Your task to perform on an android device: turn pop-ups on in chrome Image 0: 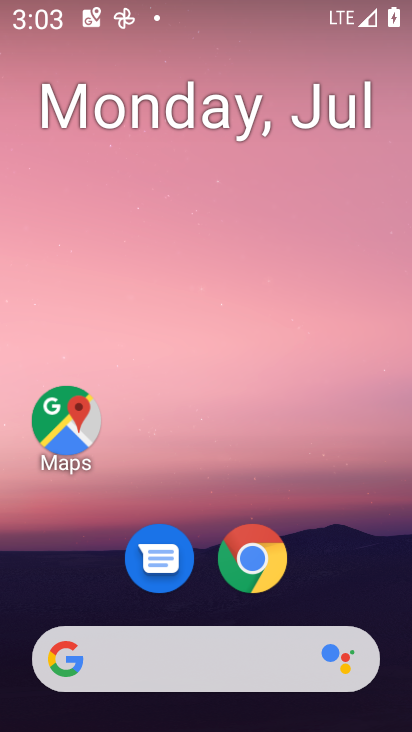
Step 0: drag from (349, 568) to (411, 300)
Your task to perform on an android device: turn pop-ups on in chrome Image 1: 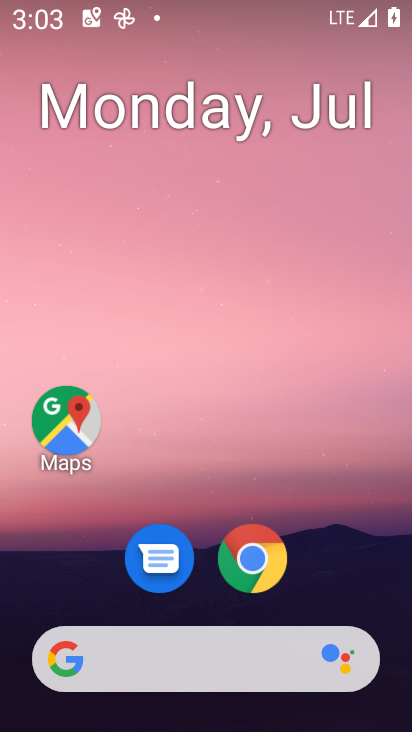
Step 1: drag from (372, 583) to (373, 88)
Your task to perform on an android device: turn pop-ups on in chrome Image 2: 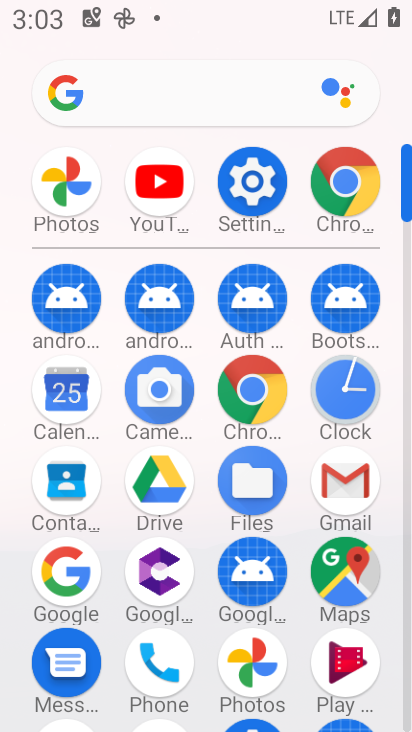
Step 2: click (350, 196)
Your task to perform on an android device: turn pop-ups on in chrome Image 3: 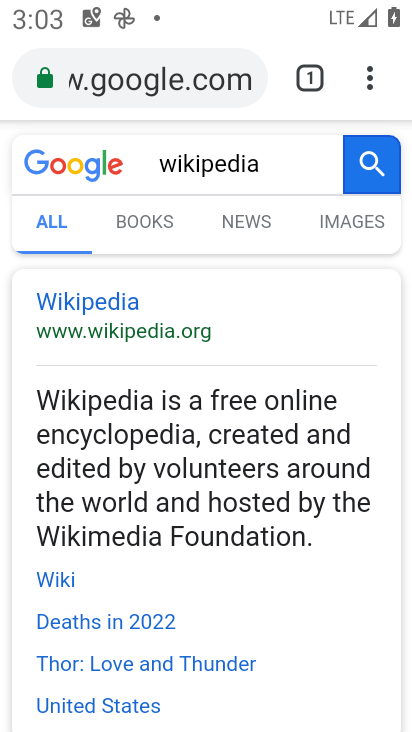
Step 3: click (370, 86)
Your task to perform on an android device: turn pop-ups on in chrome Image 4: 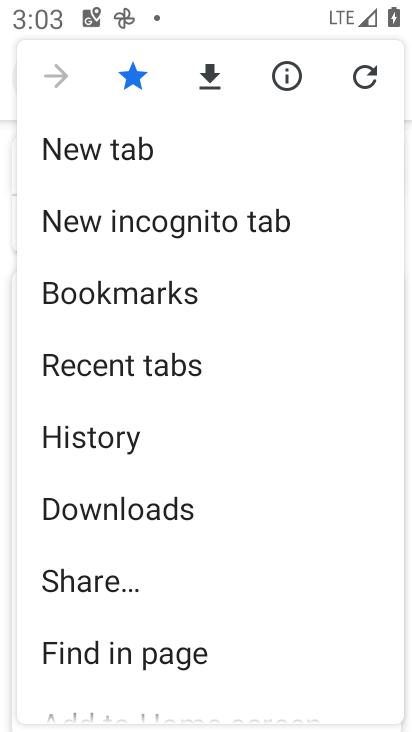
Step 4: drag from (270, 497) to (274, 368)
Your task to perform on an android device: turn pop-ups on in chrome Image 5: 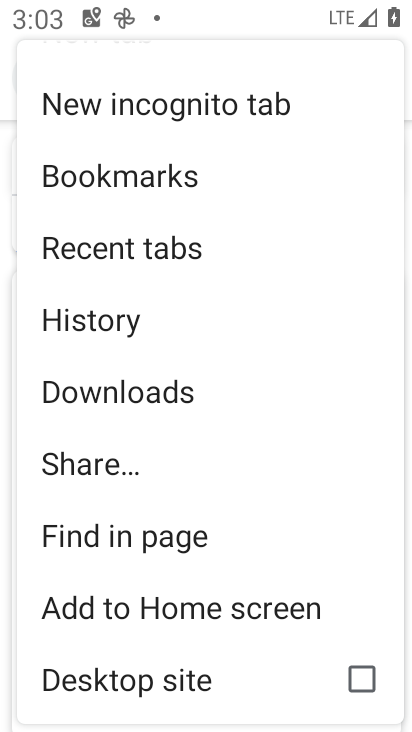
Step 5: drag from (286, 511) to (289, 384)
Your task to perform on an android device: turn pop-ups on in chrome Image 6: 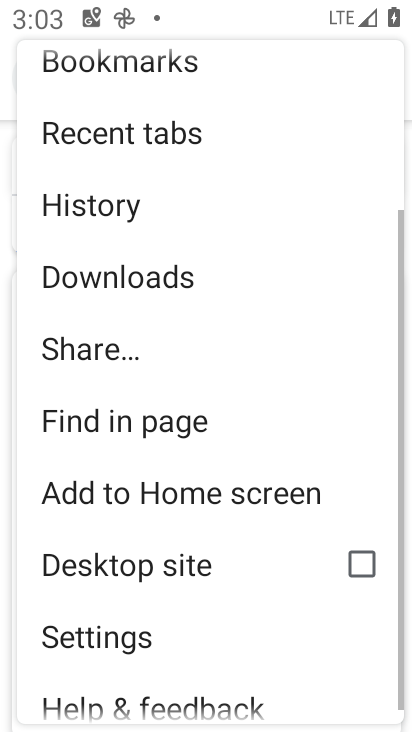
Step 6: drag from (254, 582) to (254, 416)
Your task to perform on an android device: turn pop-ups on in chrome Image 7: 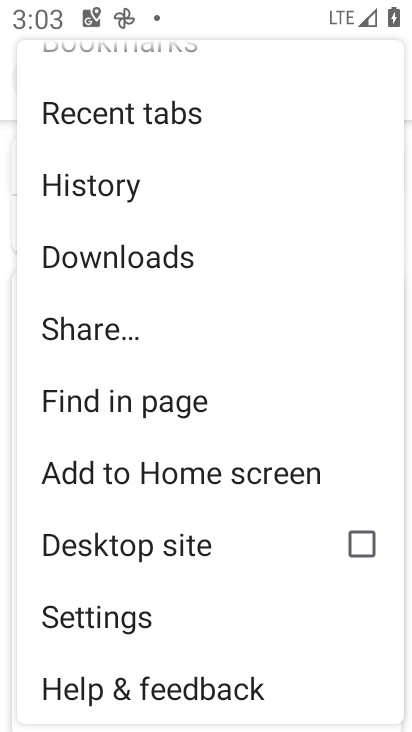
Step 7: click (209, 613)
Your task to perform on an android device: turn pop-ups on in chrome Image 8: 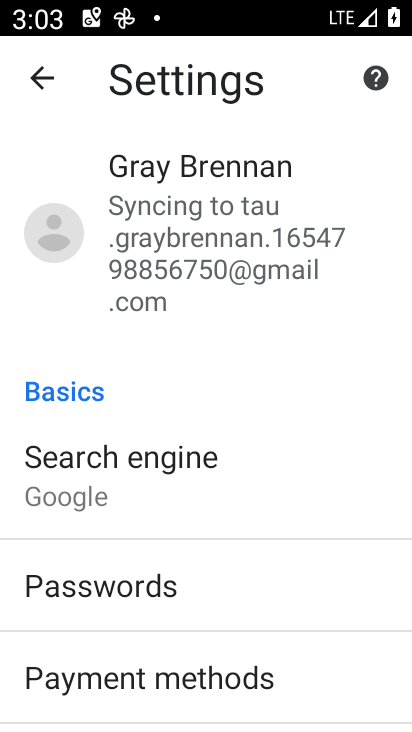
Step 8: drag from (362, 630) to (355, 446)
Your task to perform on an android device: turn pop-ups on in chrome Image 9: 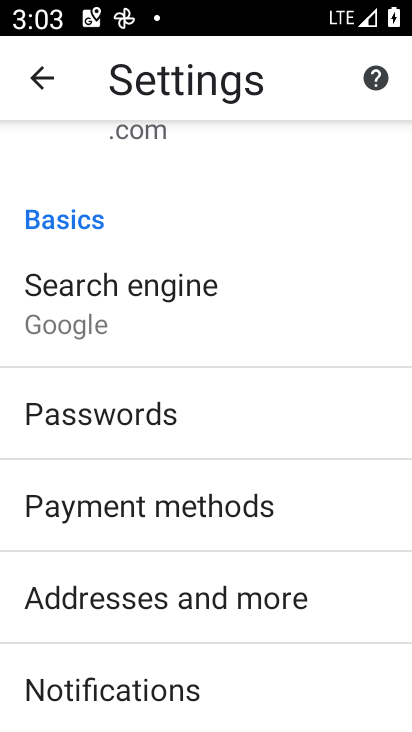
Step 9: drag from (347, 616) to (347, 457)
Your task to perform on an android device: turn pop-ups on in chrome Image 10: 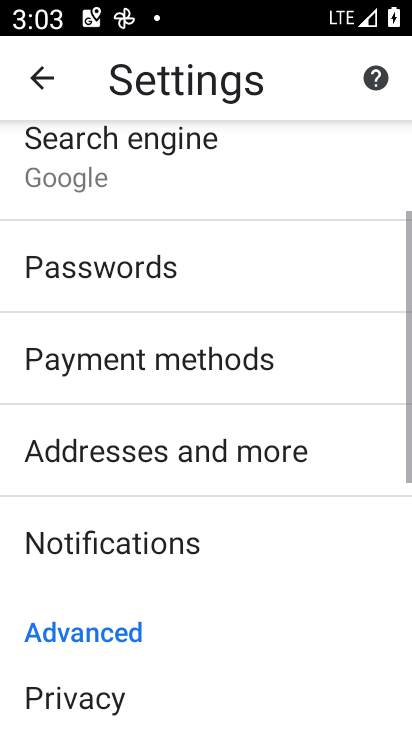
Step 10: drag from (339, 628) to (339, 480)
Your task to perform on an android device: turn pop-ups on in chrome Image 11: 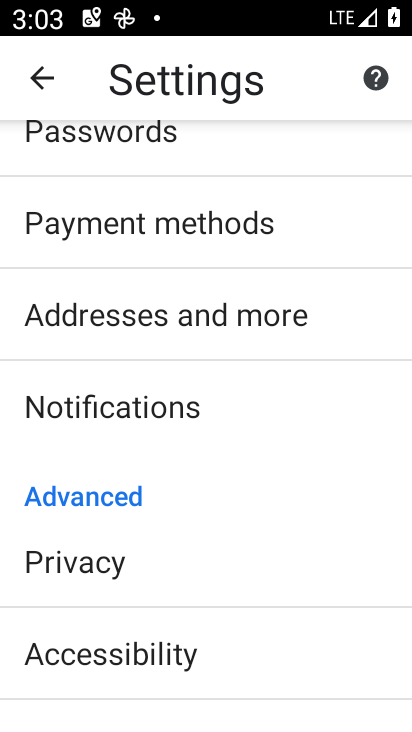
Step 11: drag from (316, 637) to (314, 479)
Your task to perform on an android device: turn pop-ups on in chrome Image 12: 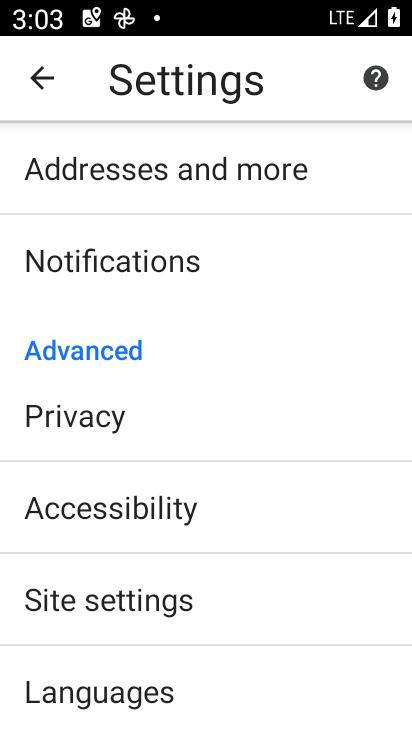
Step 12: drag from (317, 619) to (310, 499)
Your task to perform on an android device: turn pop-ups on in chrome Image 13: 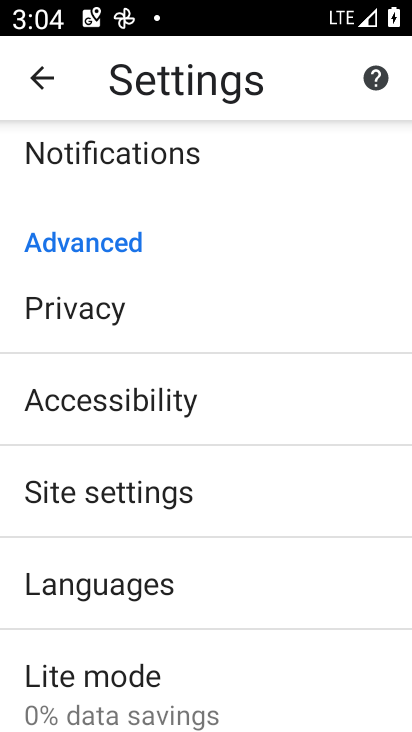
Step 13: drag from (298, 616) to (290, 493)
Your task to perform on an android device: turn pop-ups on in chrome Image 14: 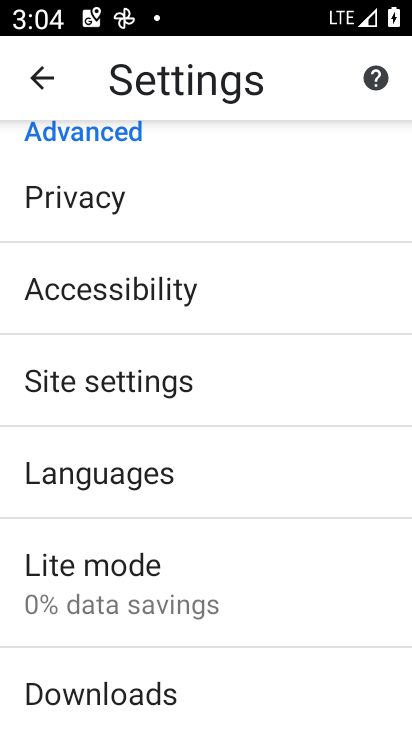
Step 14: drag from (286, 615) to (284, 515)
Your task to perform on an android device: turn pop-ups on in chrome Image 15: 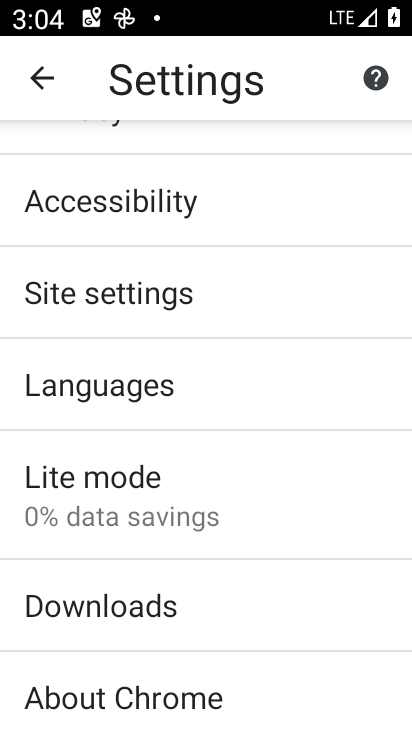
Step 15: drag from (291, 572) to (288, 409)
Your task to perform on an android device: turn pop-ups on in chrome Image 16: 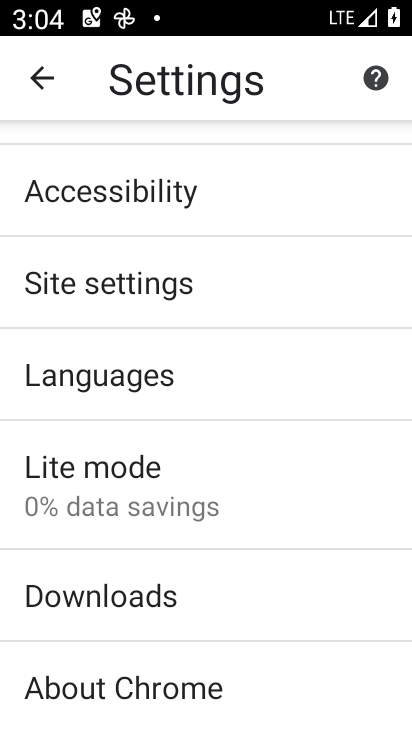
Step 16: drag from (270, 266) to (270, 392)
Your task to perform on an android device: turn pop-ups on in chrome Image 17: 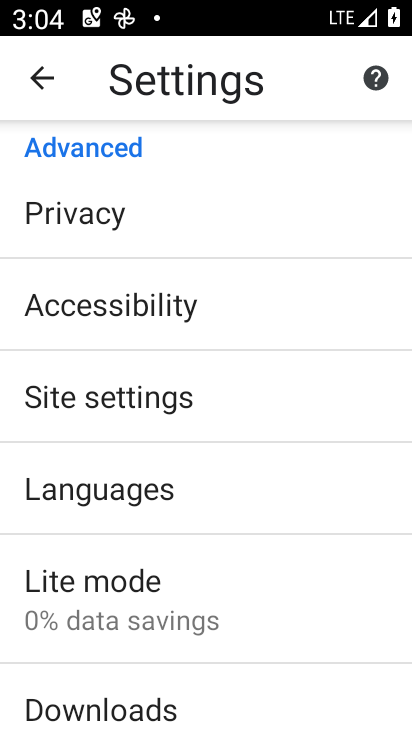
Step 17: drag from (293, 278) to (294, 410)
Your task to perform on an android device: turn pop-ups on in chrome Image 18: 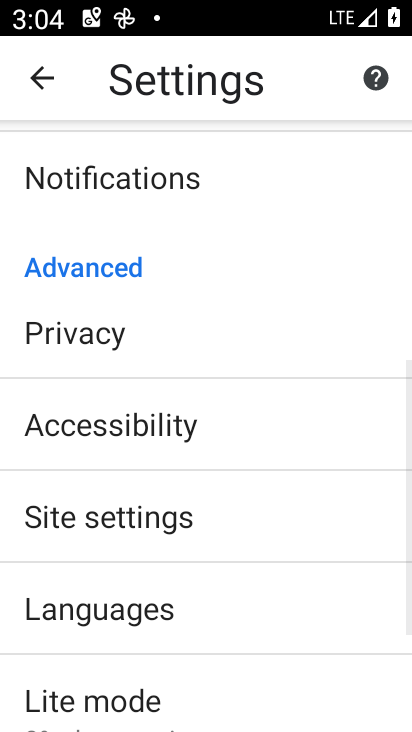
Step 18: click (294, 508)
Your task to perform on an android device: turn pop-ups on in chrome Image 19: 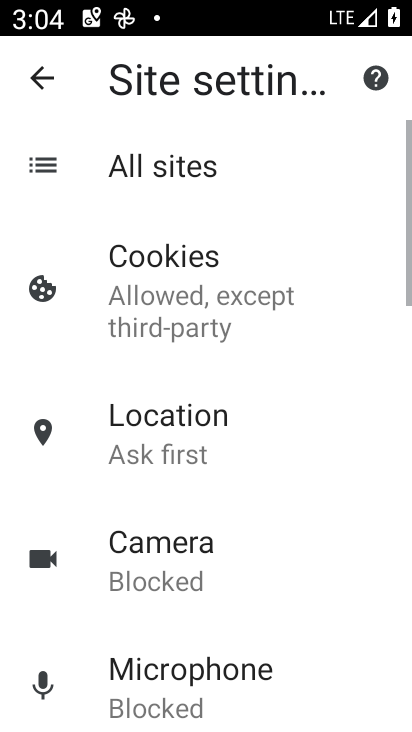
Step 19: drag from (295, 566) to (291, 395)
Your task to perform on an android device: turn pop-ups on in chrome Image 20: 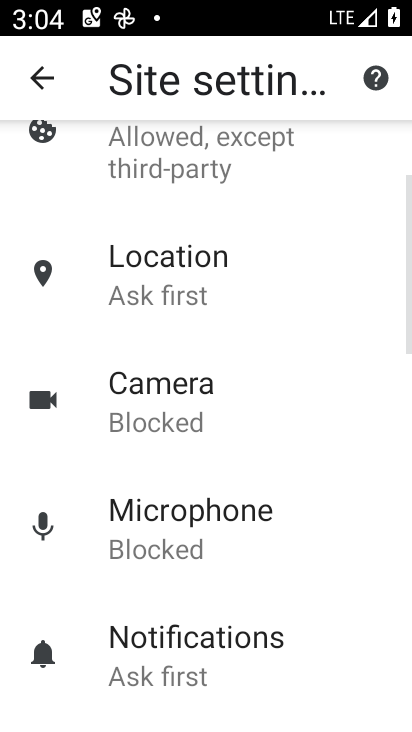
Step 20: drag from (309, 587) to (309, 422)
Your task to perform on an android device: turn pop-ups on in chrome Image 21: 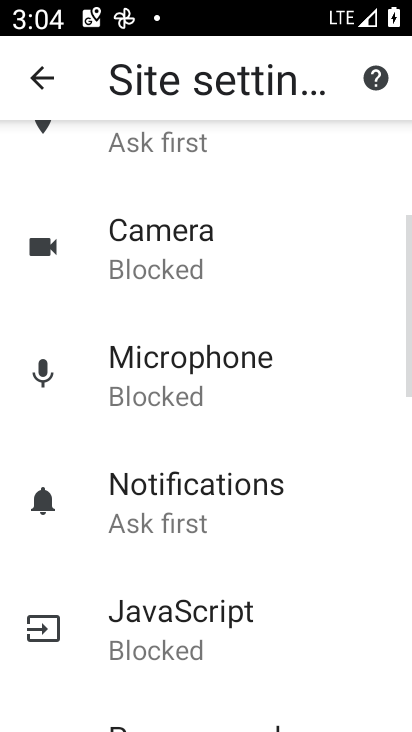
Step 21: drag from (322, 609) to (320, 452)
Your task to perform on an android device: turn pop-ups on in chrome Image 22: 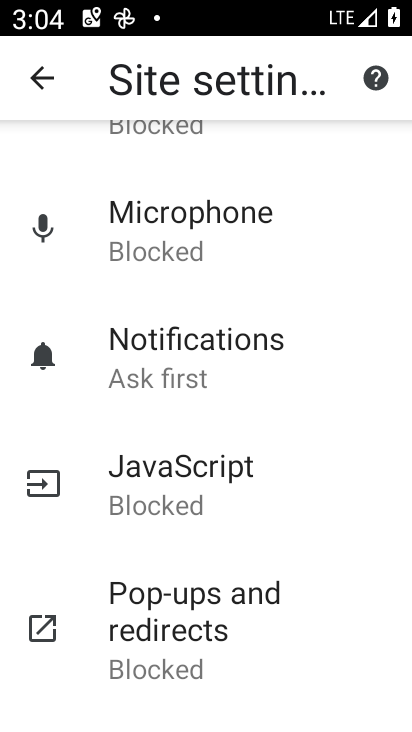
Step 22: click (244, 600)
Your task to perform on an android device: turn pop-ups on in chrome Image 23: 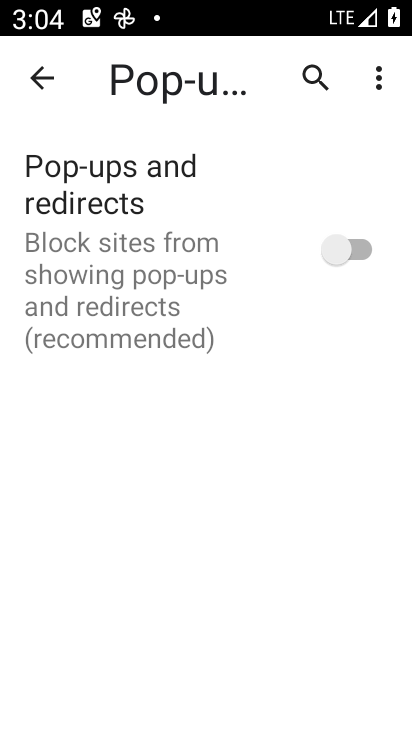
Step 23: click (348, 245)
Your task to perform on an android device: turn pop-ups on in chrome Image 24: 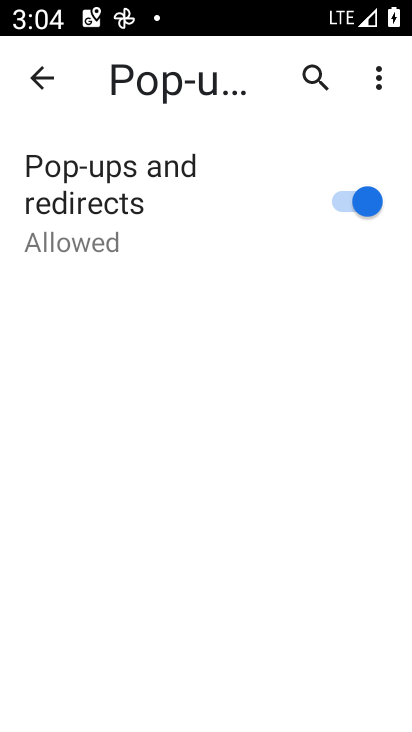
Step 24: task complete